Your task to perform on an android device: change text size in settings app Image 0: 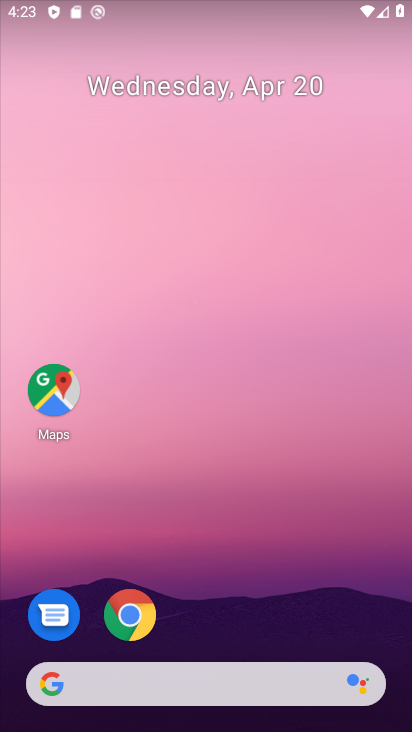
Step 0: drag from (221, 643) to (330, 144)
Your task to perform on an android device: change text size in settings app Image 1: 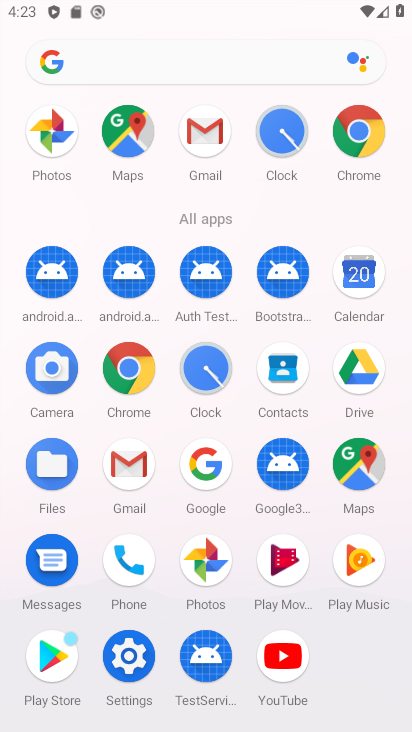
Step 1: click (126, 653)
Your task to perform on an android device: change text size in settings app Image 2: 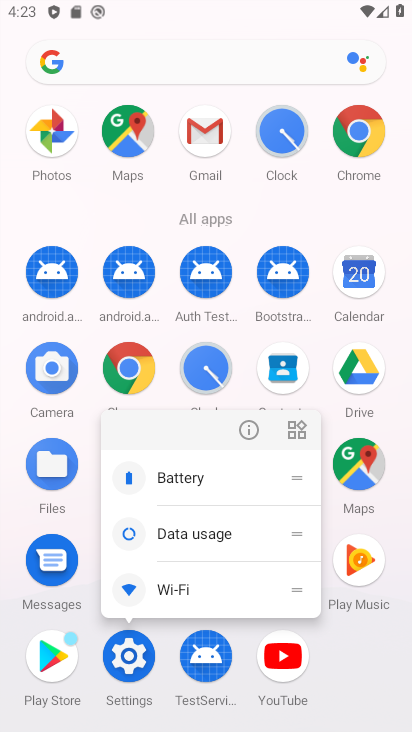
Step 2: click (133, 658)
Your task to perform on an android device: change text size in settings app Image 3: 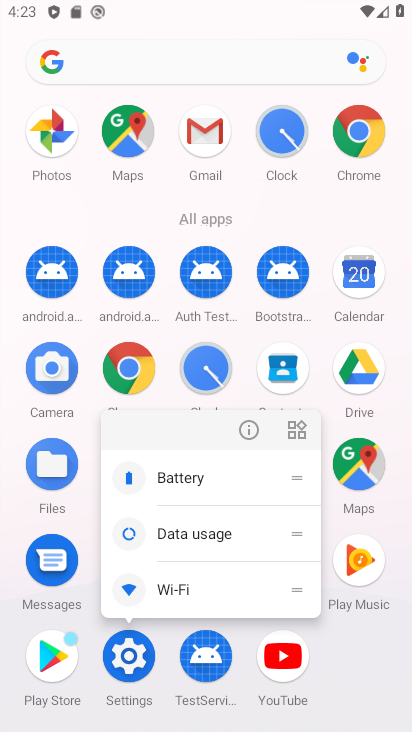
Step 3: click (131, 656)
Your task to perform on an android device: change text size in settings app Image 4: 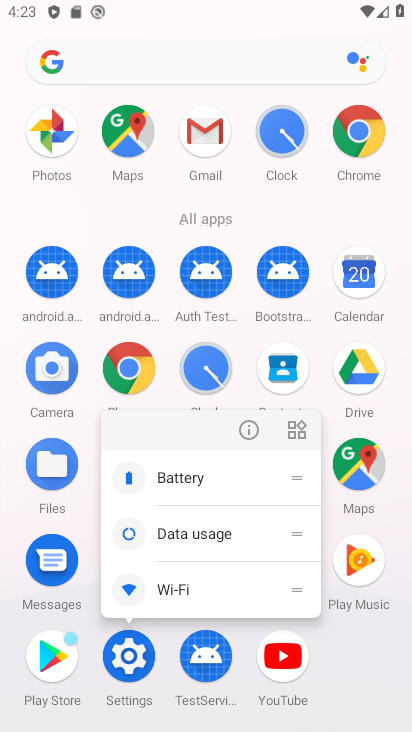
Step 4: click (135, 660)
Your task to perform on an android device: change text size in settings app Image 5: 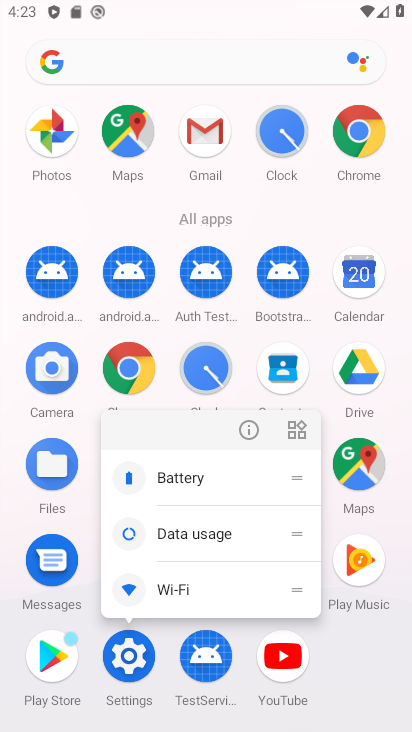
Step 5: click (130, 658)
Your task to perform on an android device: change text size in settings app Image 6: 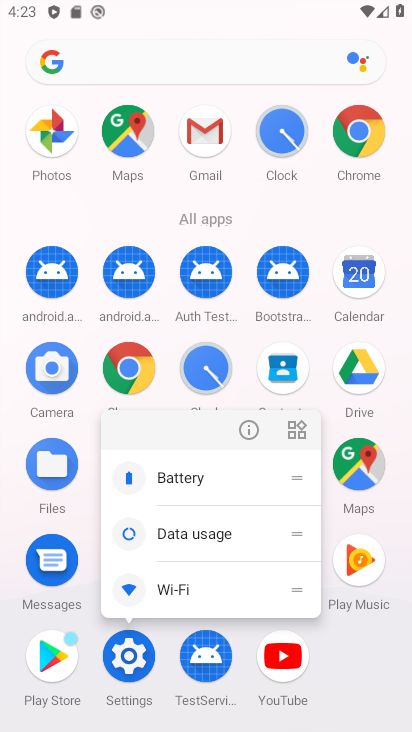
Step 6: click (137, 660)
Your task to perform on an android device: change text size in settings app Image 7: 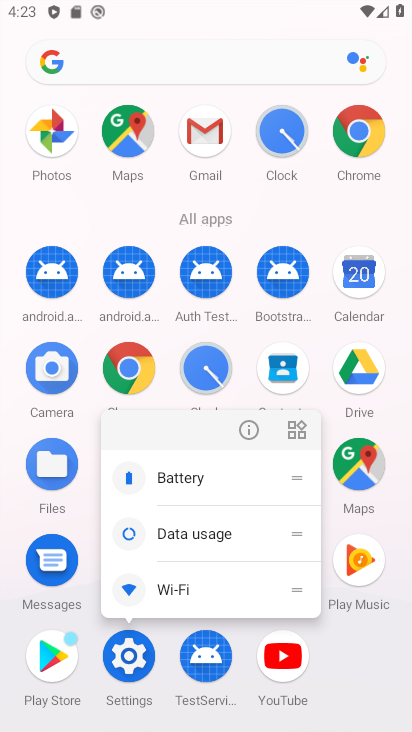
Step 7: click (121, 668)
Your task to perform on an android device: change text size in settings app Image 8: 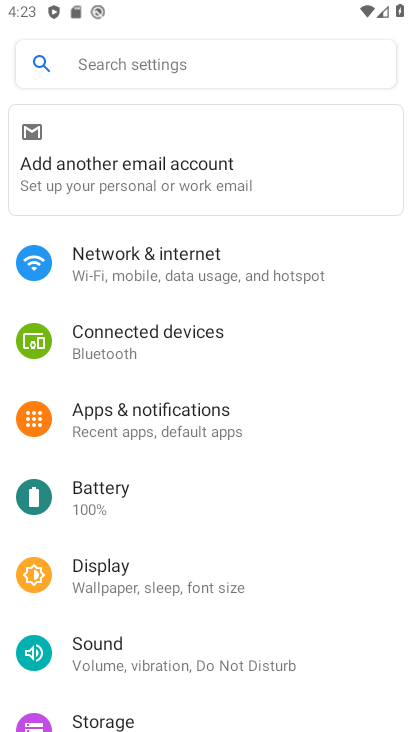
Step 8: drag from (169, 621) to (285, 342)
Your task to perform on an android device: change text size in settings app Image 9: 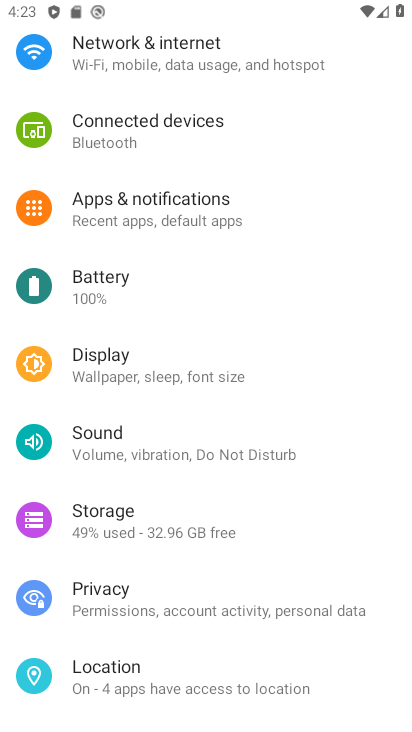
Step 9: click (125, 371)
Your task to perform on an android device: change text size in settings app Image 10: 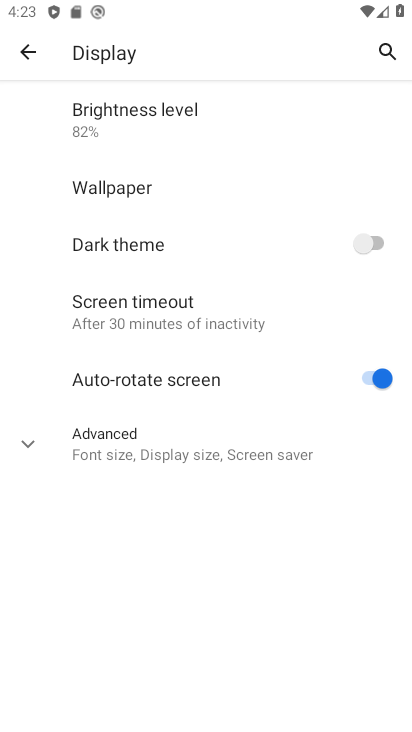
Step 10: click (165, 441)
Your task to perform on an android device: change text size in settings app Image 11: 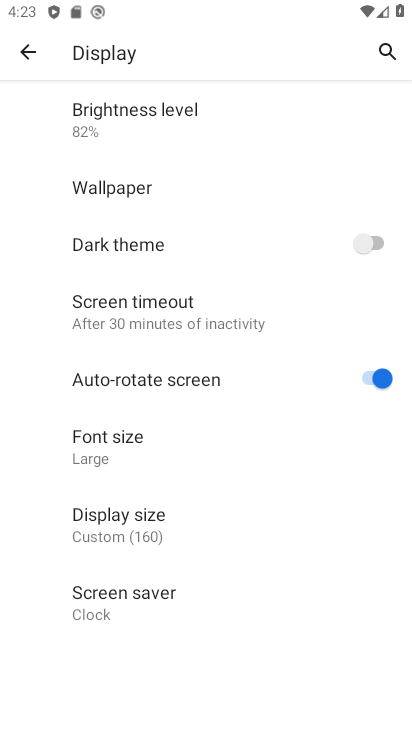
Step 11: click (131, 449)
Your task to perform on an android device: change text size in settings app Image 12: 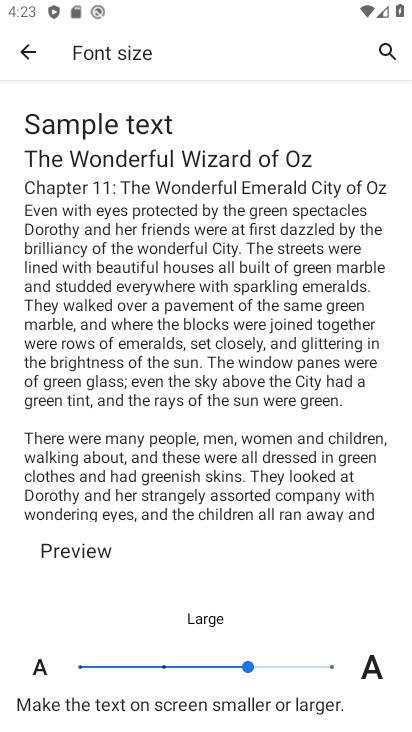
Step 12: click (166, 659)
Your task to perform on an android device: change text size in settings app Image 13: 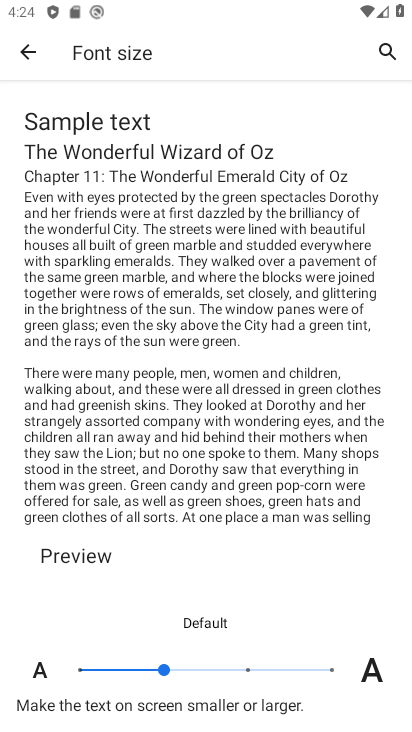
Step 13: task complete